Your task to perform on an android device: Search for seafood restaurants on Google Maps Image 0: 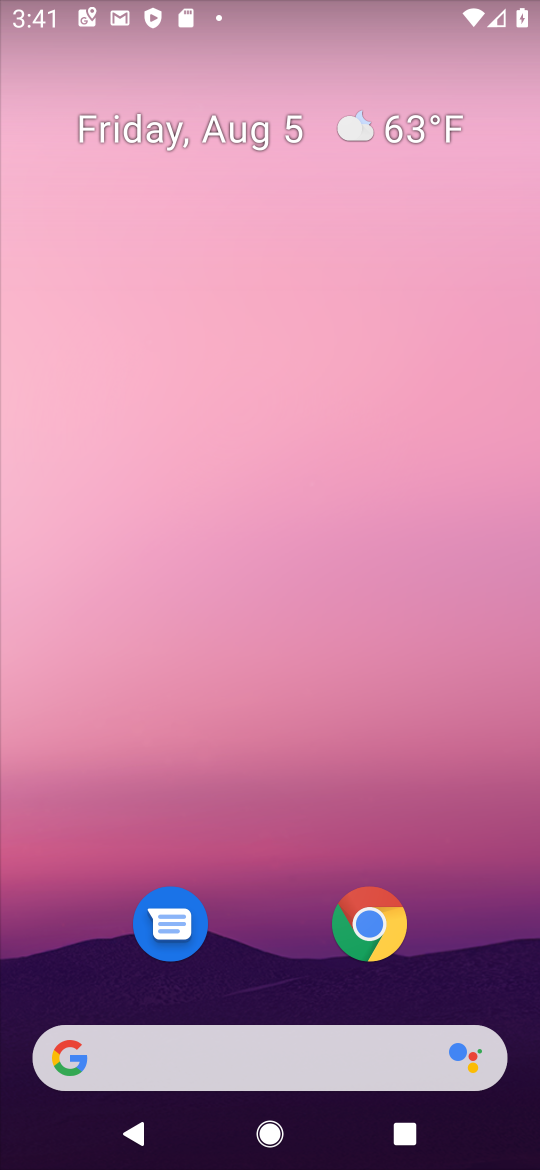
Step 0: drag from (304, 958) to (6, 330)
Your task to perform on an android device: Search for seafood restaurants on Google Maps Image 1: 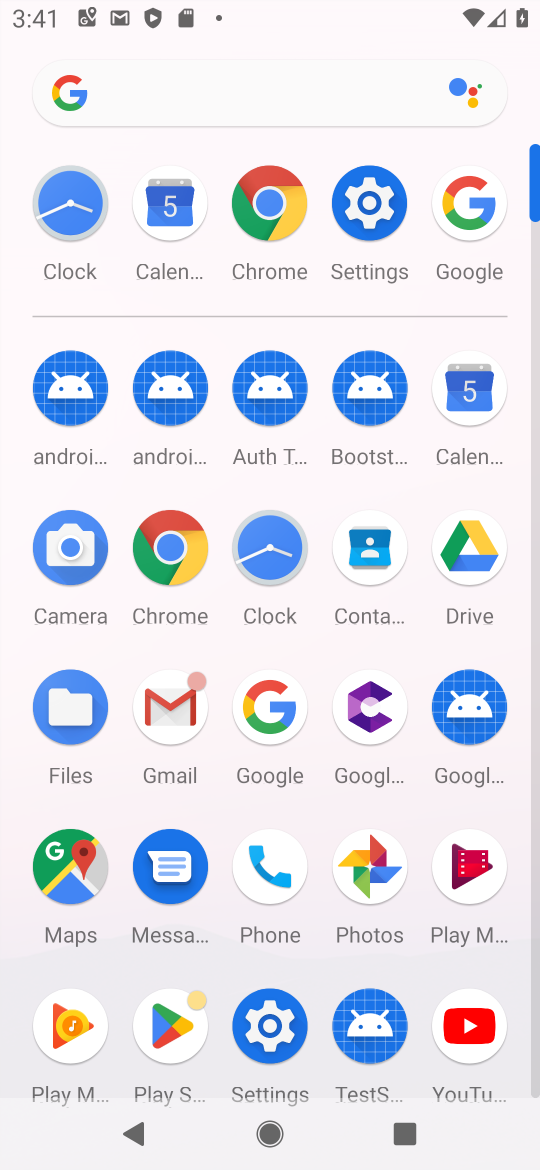
Step 1: click (84, 881)
Your task to perform on an android device: Search for seafood restaurants on Google Maps Image 2: 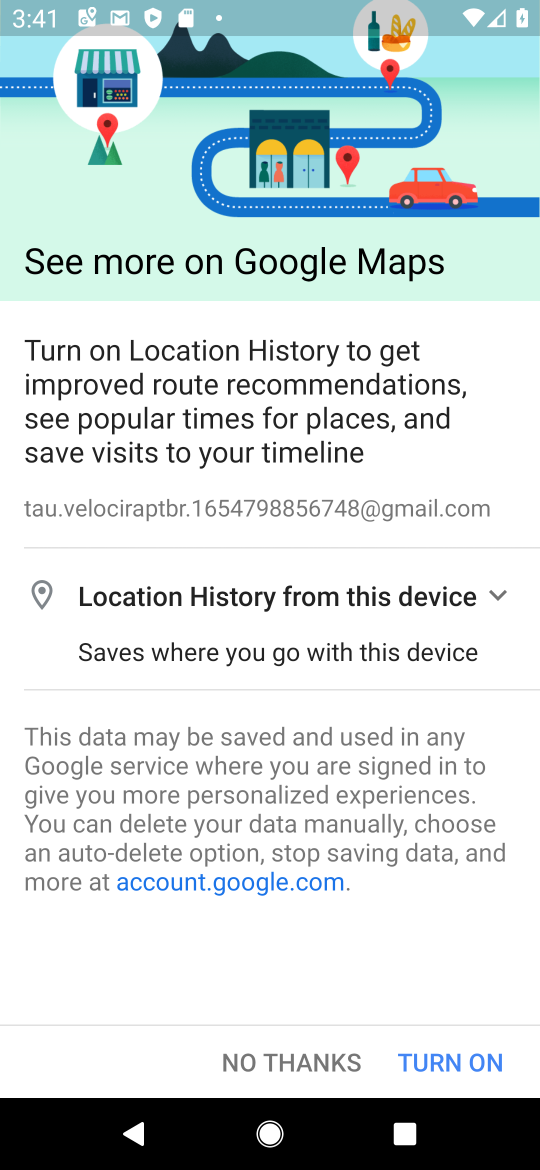
Step 2: click (330, 1053)
Your task to perform on an android device: Search for seafood restaurants on Google Maps Image 3: 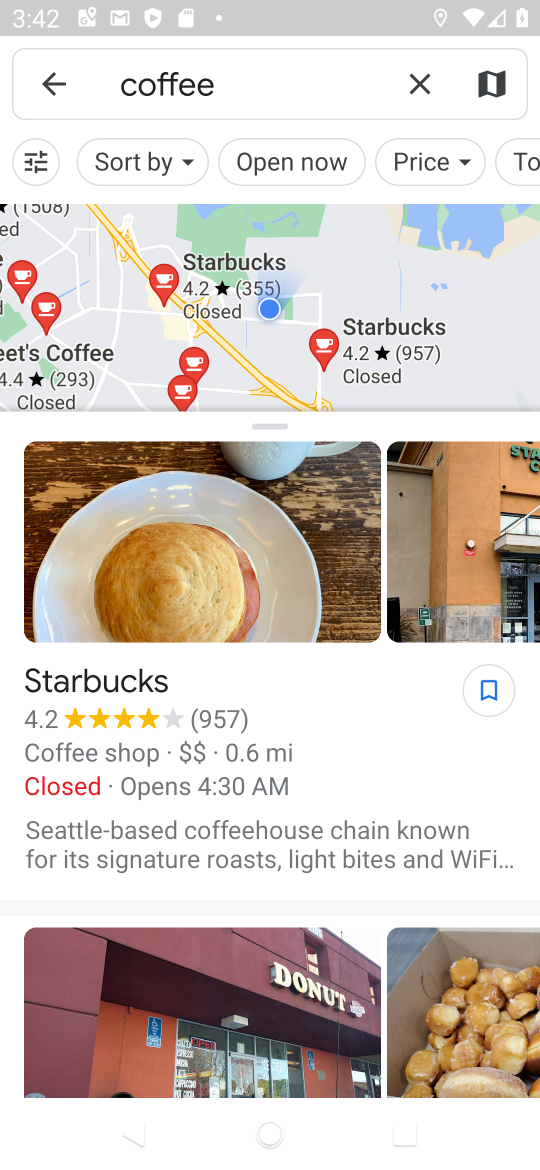
Step 3: click (415, 66)
Your task to perform on an android device: Search for seafood restaurants on Google Maps Image 4: 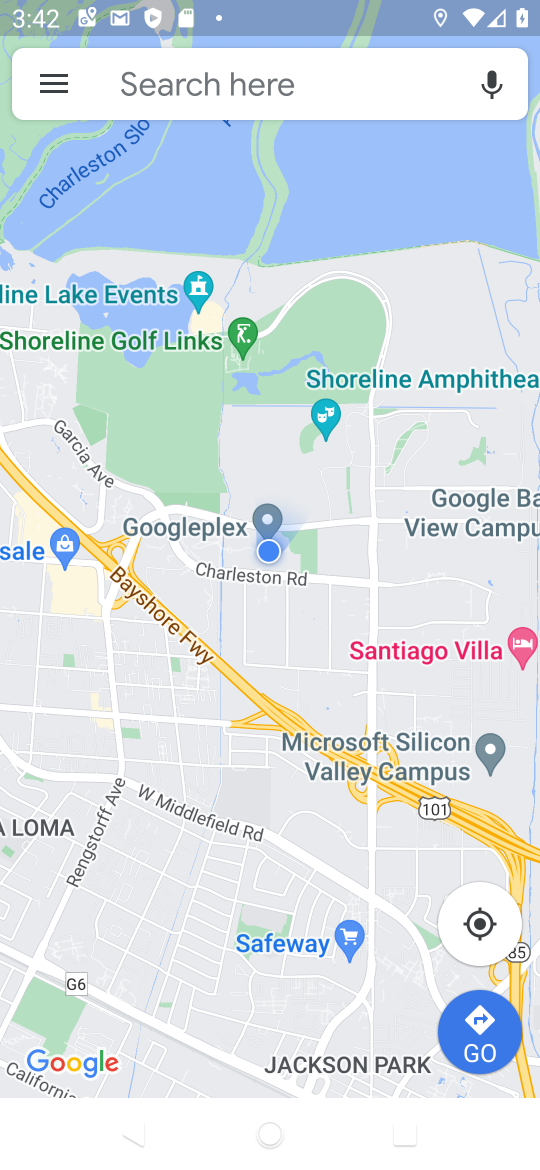
Step 4: click (236, 89)
Your task to perform on an android device: Search for seafood restaurants on Google Maps Image 5: 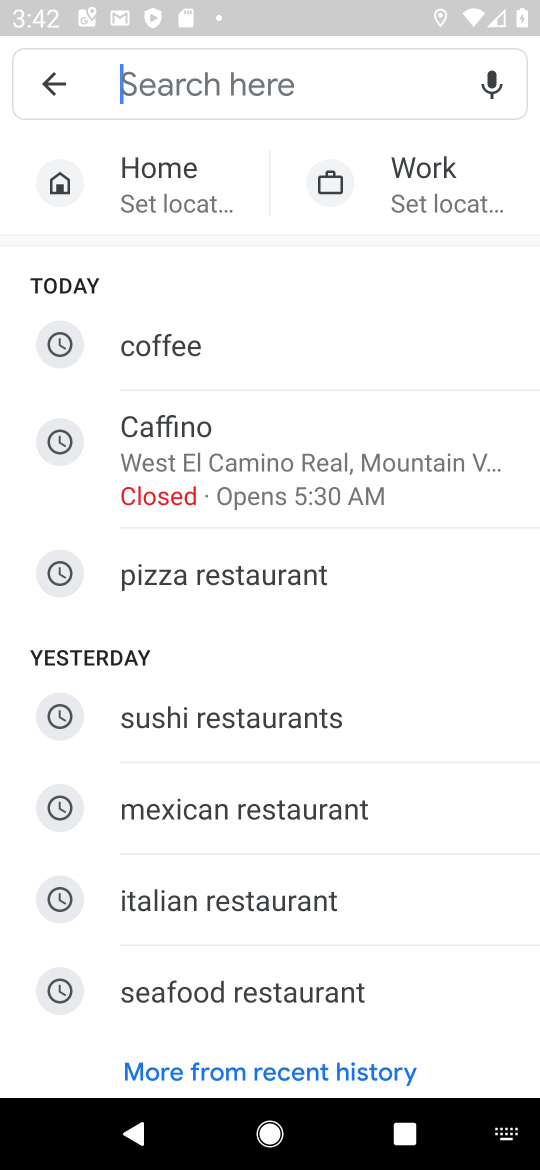
Step 5: click (232, 997)
Your task to perform on an android device: Search for seafood restaurants on Google Maps Image 6: 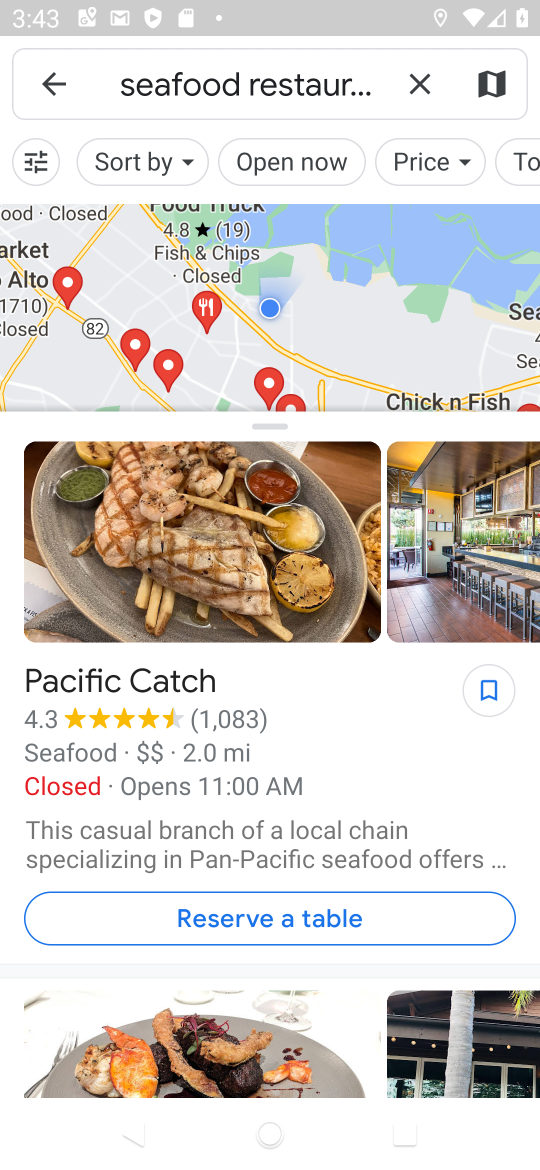
Step 6: task complete